Your task to perform on an android device: Open location settings Image 0: 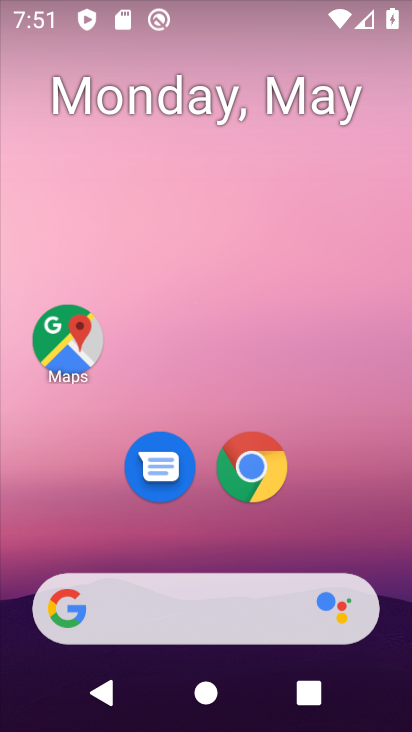
Step 0: press home button
Your task to perform on an android device: Open location settings Image 1: 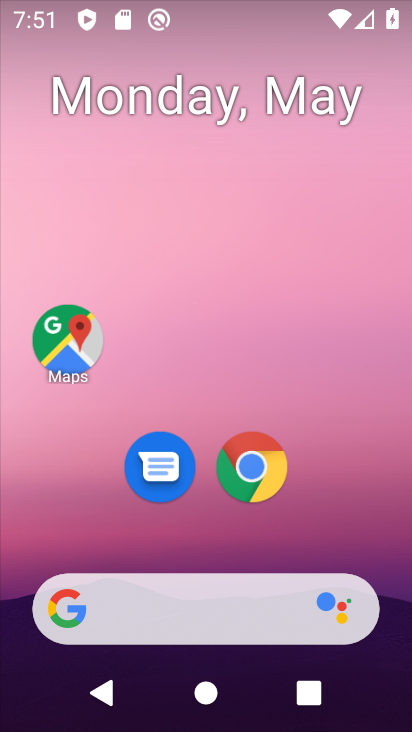
Step 1: drag from (335, 529) to (277, 21)
Your task to perform on an android device: Open location settings Image 2: 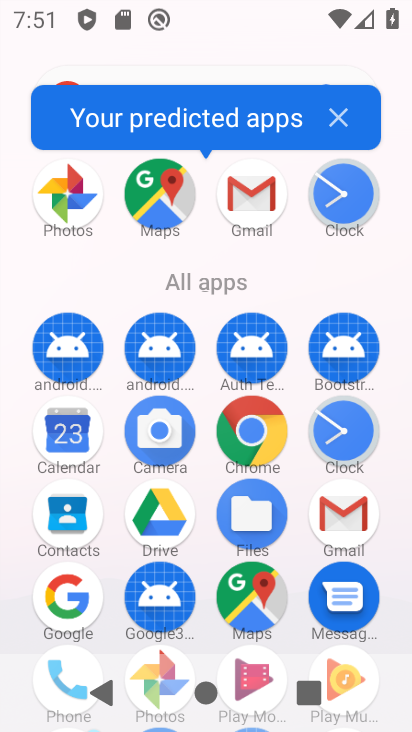
Step 2: drag from (232, 198) to (234, 49)
Your task to perform on an android device: Open location settings Image 3: 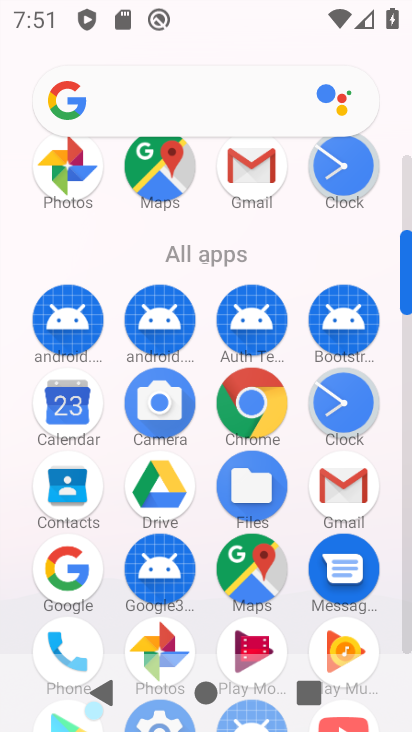
Step 3: drag from (198, 602) to (201, 104)
Your task to perform on an android device: Open location settings Image 4: 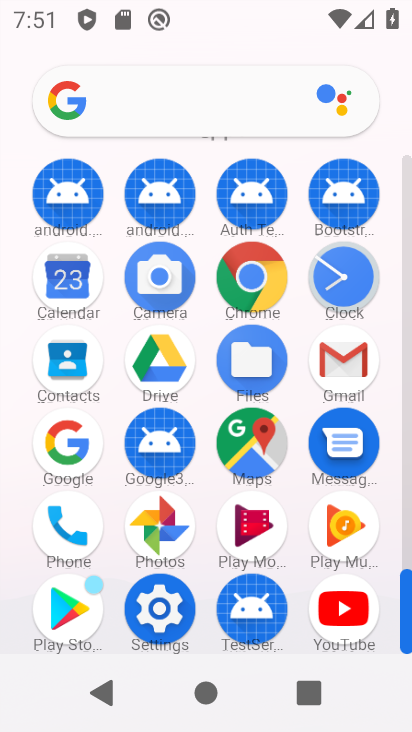
Step 4: click (161, 610)
Your task to perform on an android device: Open location settings Image 5: 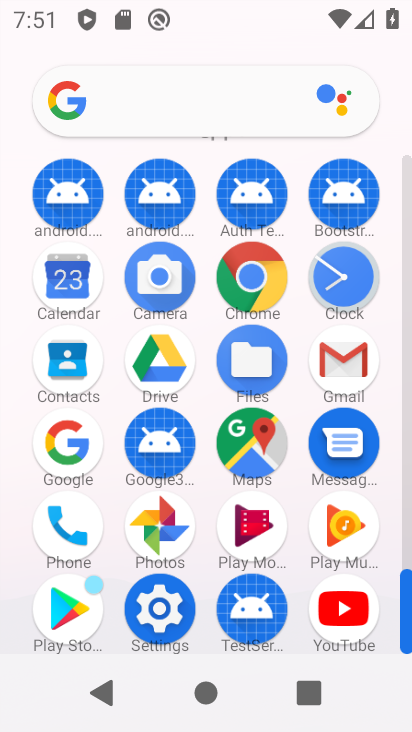
Step 5: click (166, 600)
Your task to perform on an android device: Open location settings Image 6: 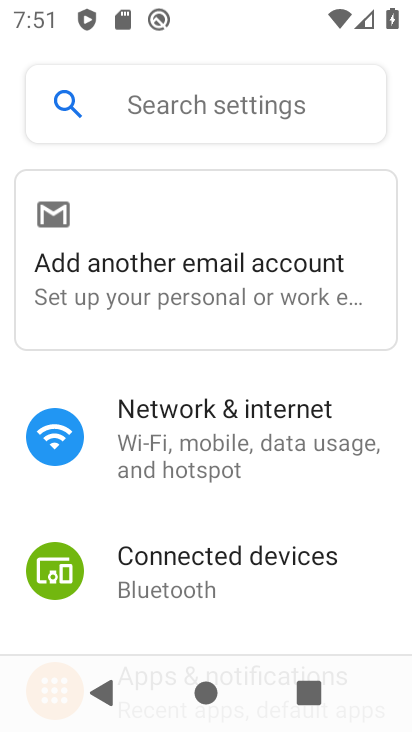
Step 6: drag from (258, 528) to (263, 81)
Your task to perform on an android device: Open location settings Image 7: 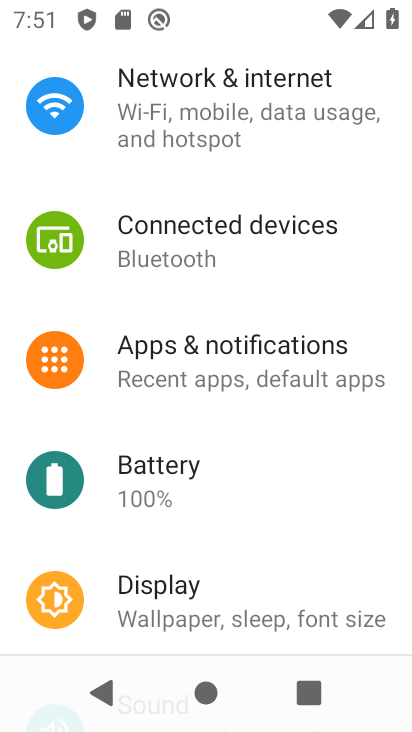
Step 7: drag from (278, 549) to (274, 43)
Your task to perform on an android device: Open location settings Image 8: 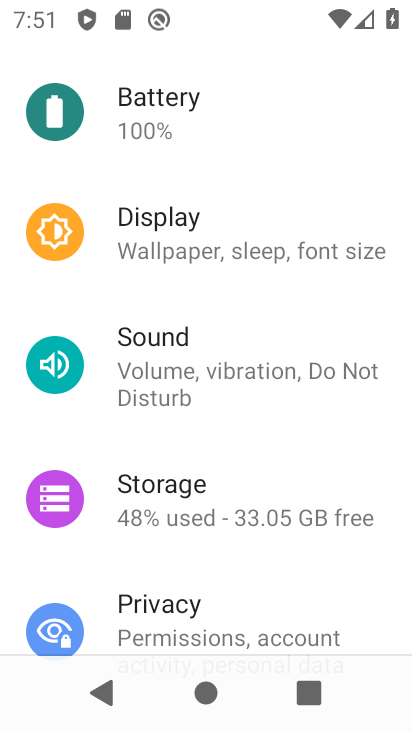
Step 8: drag from (260, 616) to (252, 101)
Your task to perform on an android device: Open location settings Image 9: 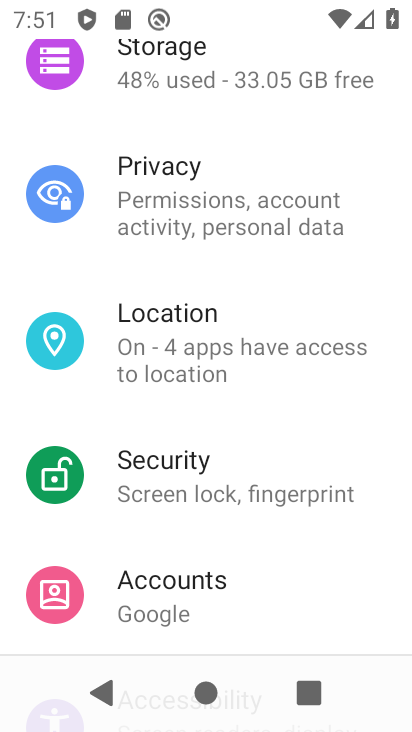
Step 9: click (218, 334)
Your task to perform on an android device: Open location settings Image 10: 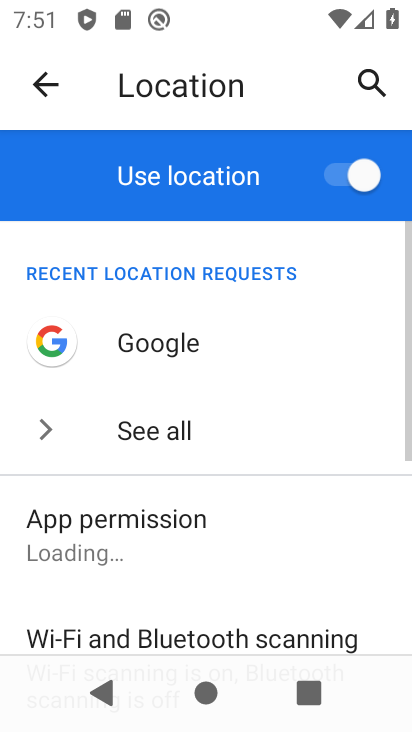
Step 10: task complete